Your task to perform on an android device: turn on data saver in the chrome app Image 0: 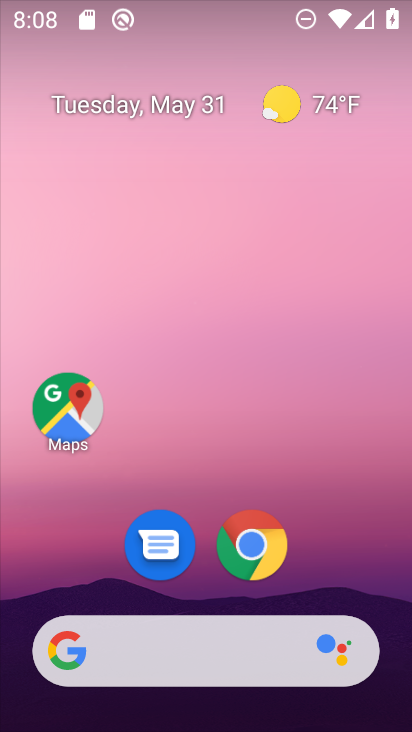
Step 0: drag from (320, 520) to (236, 26)
Your task to perform on an android device: turn on data saver in the chrome app Image 1: 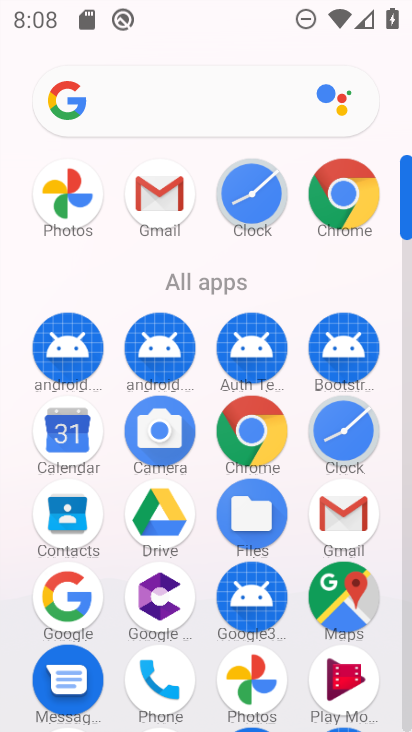
Step 1: drag from (9, 616) to (17, 263)
Your task to perform on an android device: turn on data saver in the chrome app Image 2: 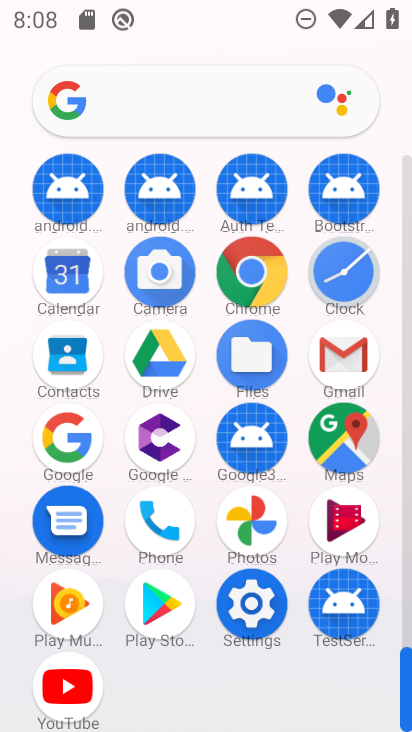
Step 2: click (248, 267)
Your task to perform on an android device: turn on data saver in the chrome app Image 3: 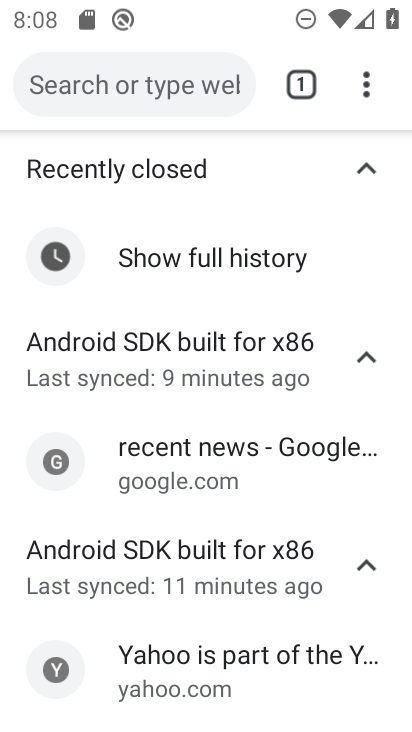
Step 3: drag from (364, 82) to (129, 581)
Your task to perform on an android device: turn on data saver in the chrome app Image 4: 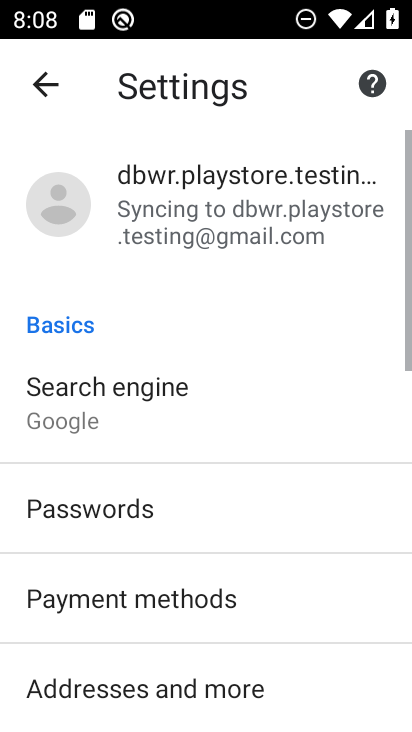
Step 4: drag from (259, 622) to (279, 181)
Your task to perform on an android device: turn on data saver in the chrome app Image 5: 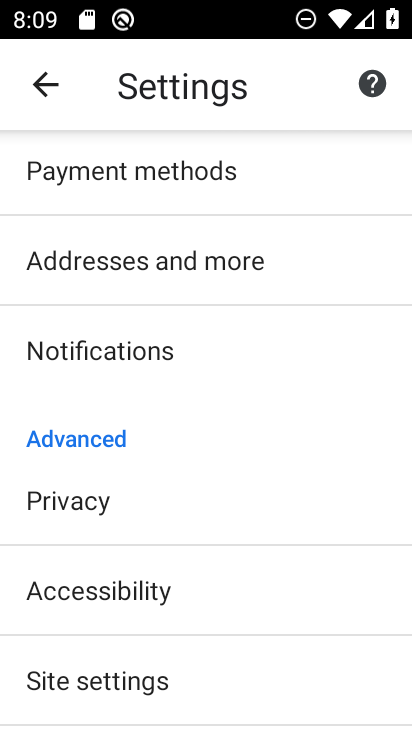
Step 5: drag from (275, 662) to (293, 194)
Your task to perform on an android device: turn on data saver in the chrome app Image 6: 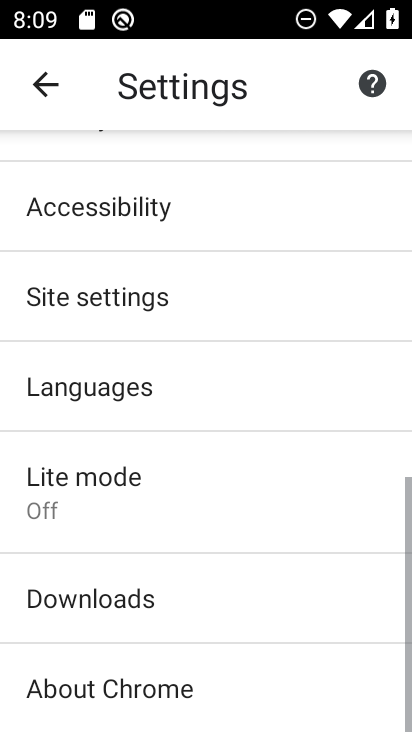
Step 6: click (128, 495)
Your task to perform on an android device: turn on data saver in the chrome app Image 7: 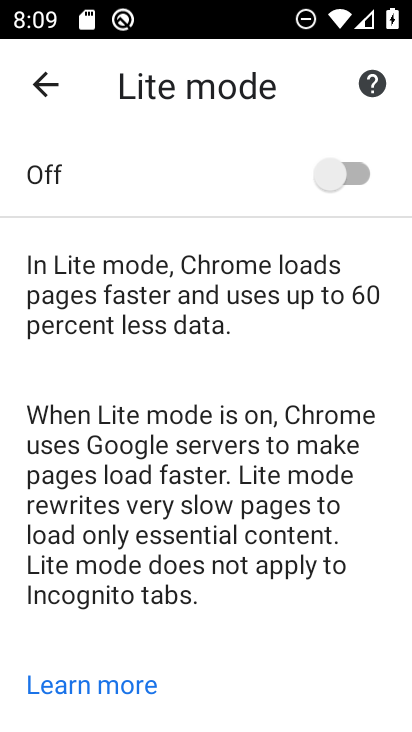
Step 7: click (344, 167)
Your task to perform on an android device: turn on data saver in the chrome app Image 8: 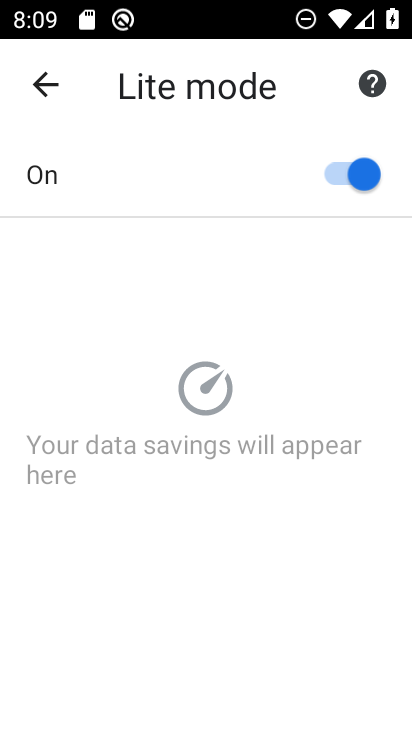
Step 8: task complete